Your task to perform on an android device: Open Chrome and go to settings Image 0: 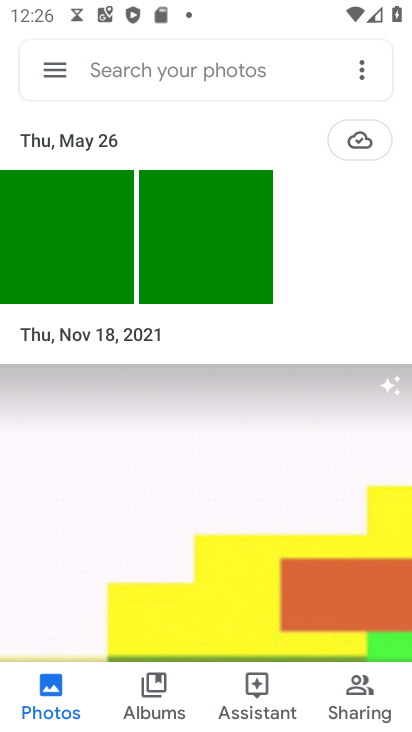
Step 0: press home button
Your task to perform on an android device: Open Chrome and go to settings Image 1: 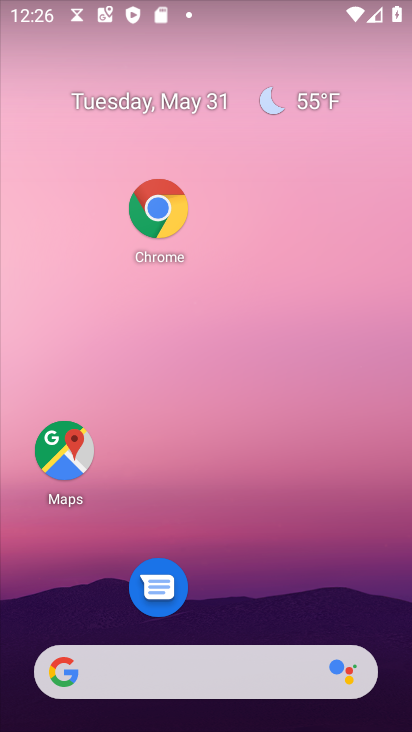
Step 1: click (168, 186)
Your task to perform on an android device: Open Chrome and go to settings Image 2: 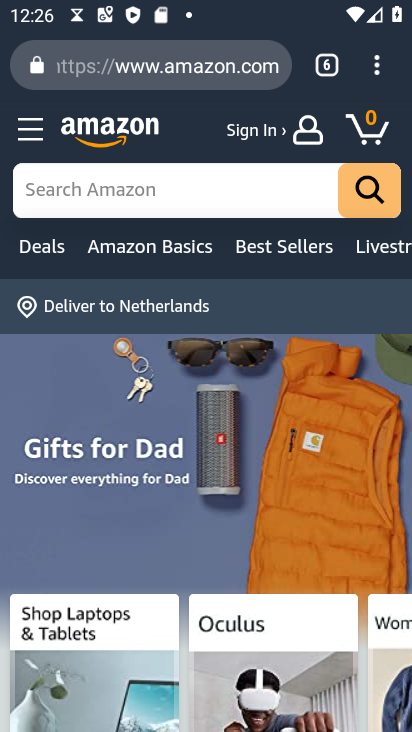
Step 2: click (379, 65)
Your task to perform on an android device: Open Chrome and go to settings Image 3: 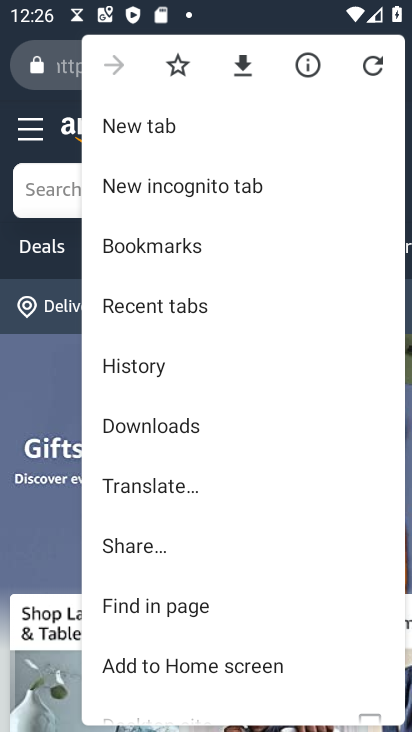
Step 3: drag from (160, 616) to (270, 270)
Your task to perform on an android device: Open Chrome and go to settings Image 4: 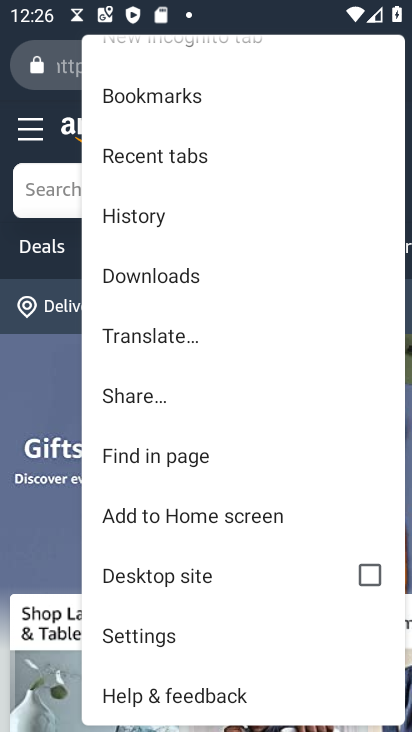
Step 4: click (162, 631)
Your task to perform on an android device: Open Chrome and go to settings Image 5: 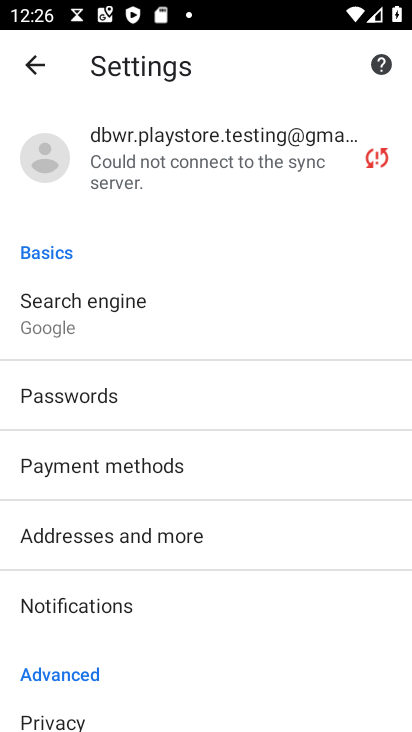
Step 5: task complete